Your task to perform on an android device: Open Youtube and go to the subscriptions tab Image 0: 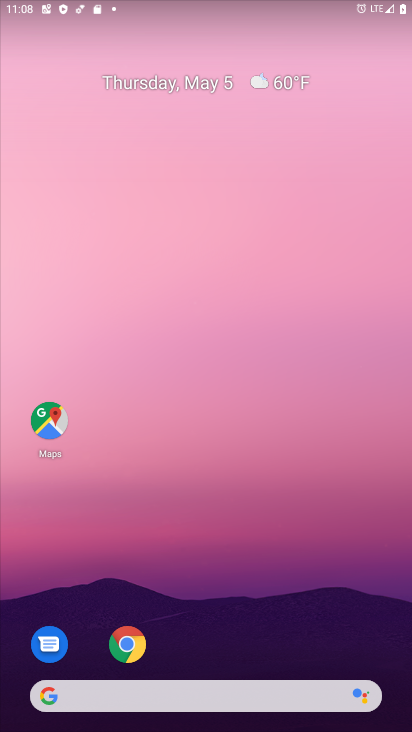
Step 0: drag from (243, 321) to (253, 133)
Your task to perform on an android device: Open Youtube and go to the subscriptions tab Image 1: 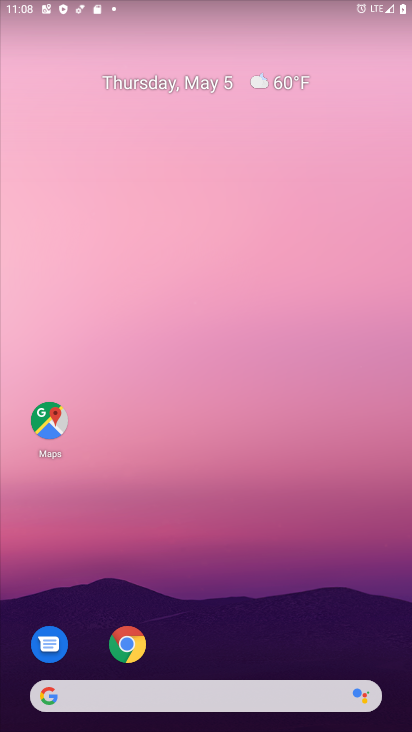
Step 1: drag from (301, 583) to (275, 119)
Your task to perform on an android device: Open Youtube and go to the subscriptions tab Image 2: 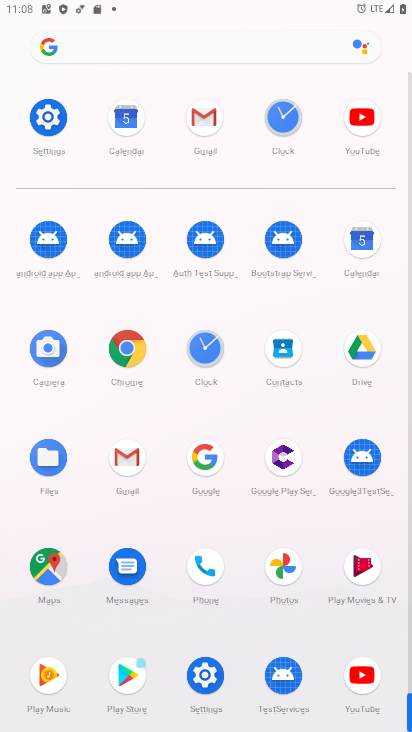
Step 2: click (359, 118)
Your task to perform on an android device: Open Youtube and go to the subscriptions tab Image 3: 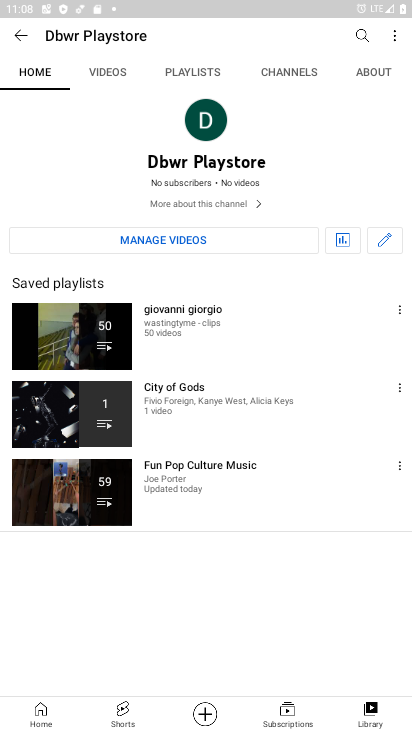
Step 3: click (276, 715)
Your task to perform on an android device: Open Youtube and go to the subscriptions tab Image 4: 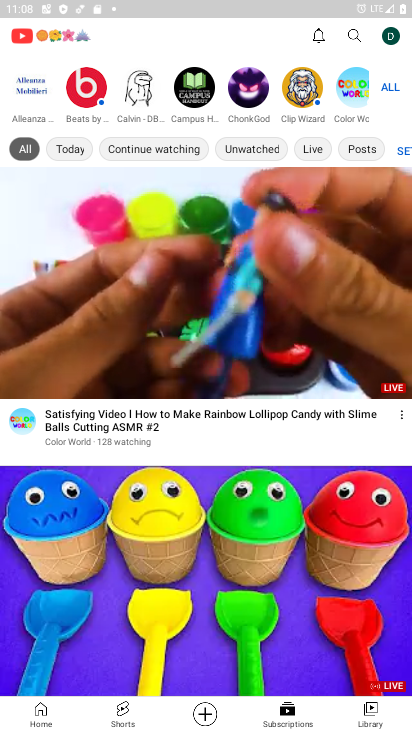
Step 4: task complete